Your task to perform on an android device: When is my next appointment? Image 0: 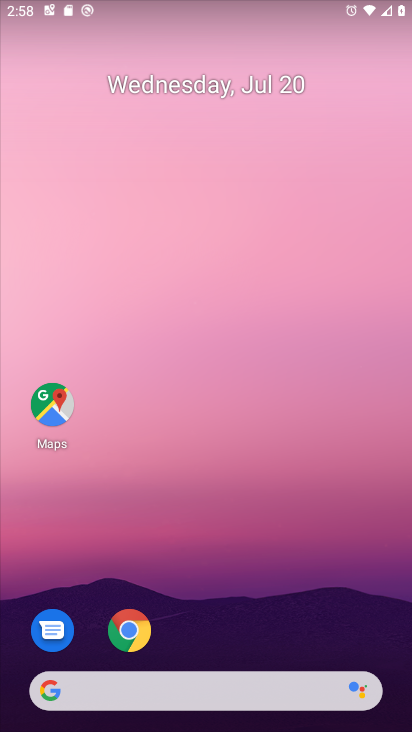
Step 0: drag from (209, 620) to (235, 199)
Your task to perform on an android device: When is my next appointment? Image 1: 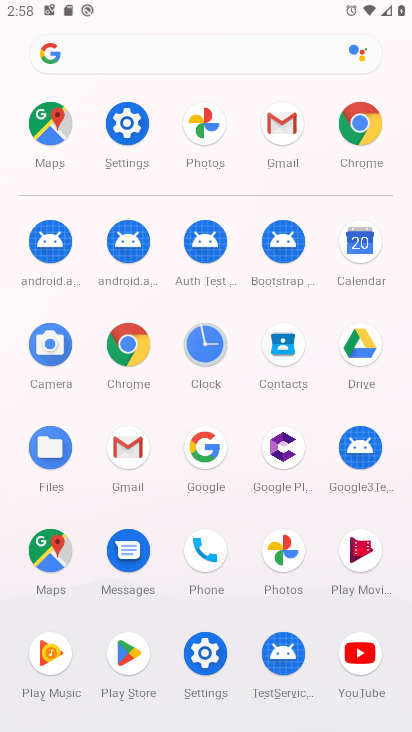
Step 1: click (353, 261)
Your task to perform on an android device: When is my next appointment? Image 2: 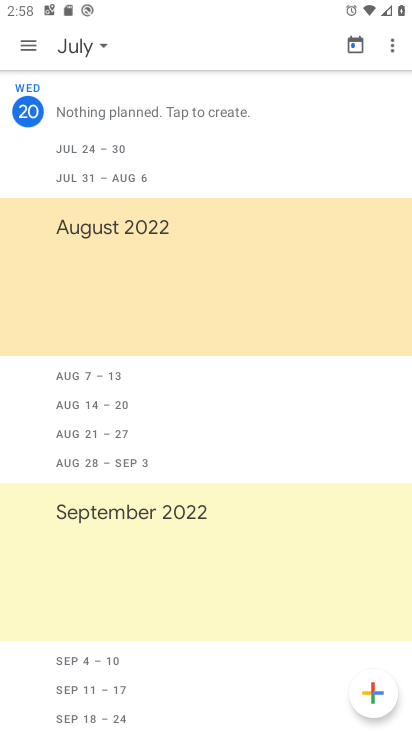
Step 2: click (34, 47)
Your task to perform on an android device: When is my next appointment? Image 3: 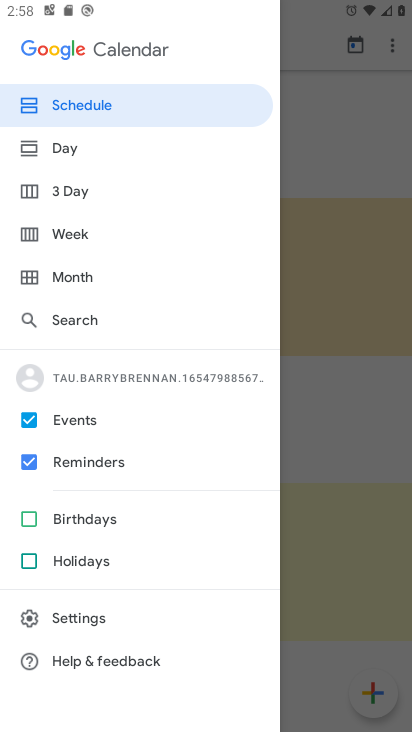
Step 3: click (373, 310)
Your task to perform on an android device: When is my next appointment? Image 4: 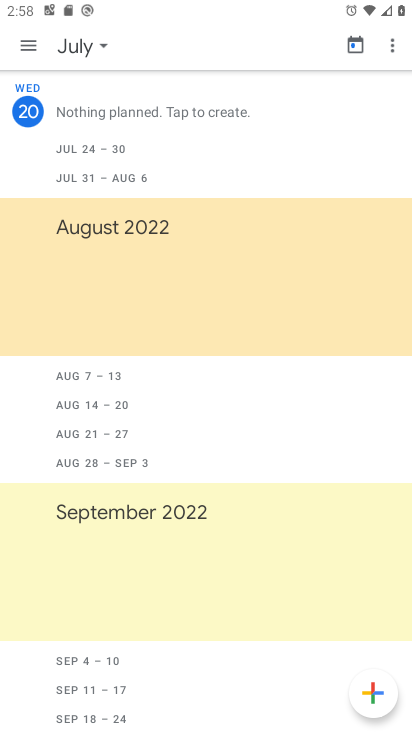
Step 4: click (83, 51)
Your task to perform on an android device: When is my next appointment? Image 5: 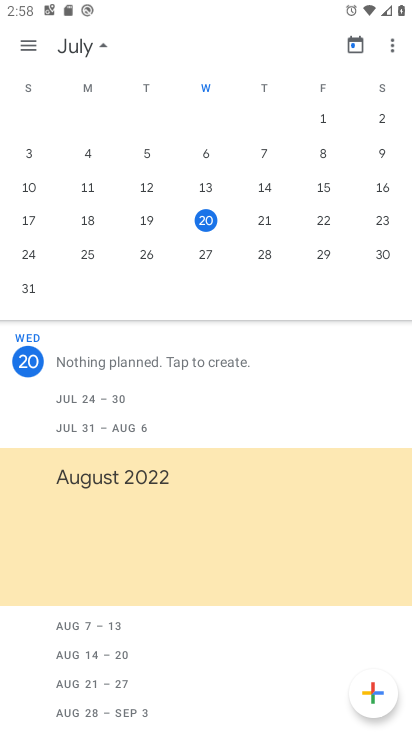
Step 5: task complete